Your task to perform on an android device: Open sound settings Image 0: 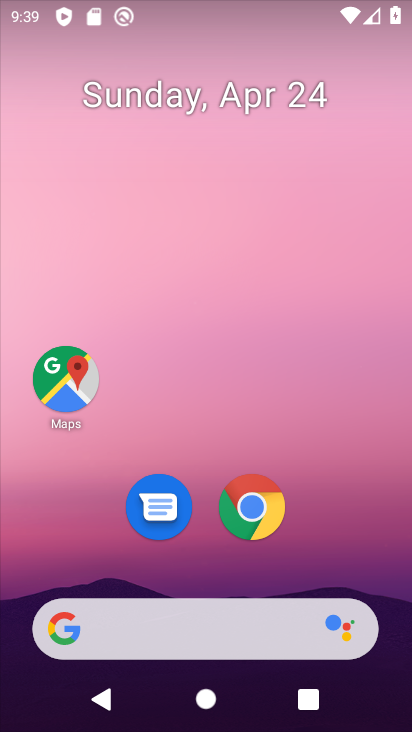
Step 0: drag from (173, 500) to (251, 126)
Your task to perform on an android device: Open sound settings Image 1: 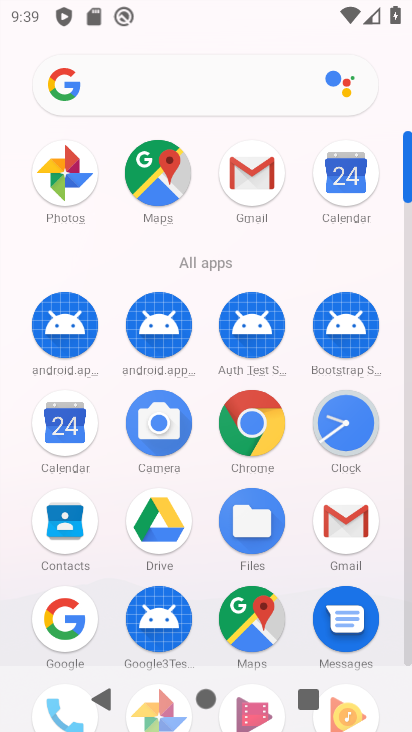
Step 1: drag from (142, 662) to (211, 373)
Your task to perform on an android device: Open sound settings Image 2: 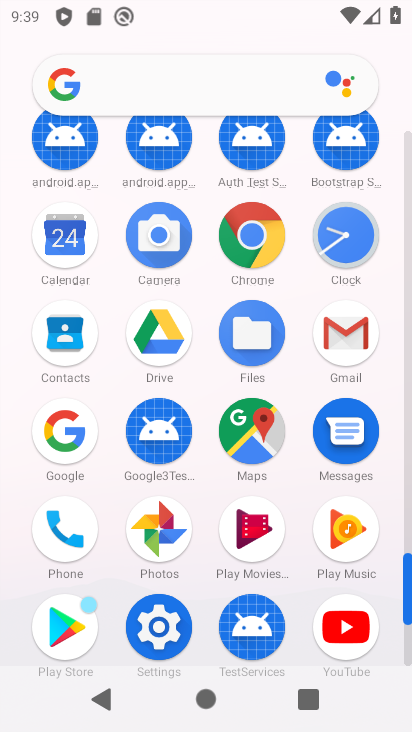
Step 2: click (151, 626)
Your task to perform on an android device: Open sound settings Image 3: 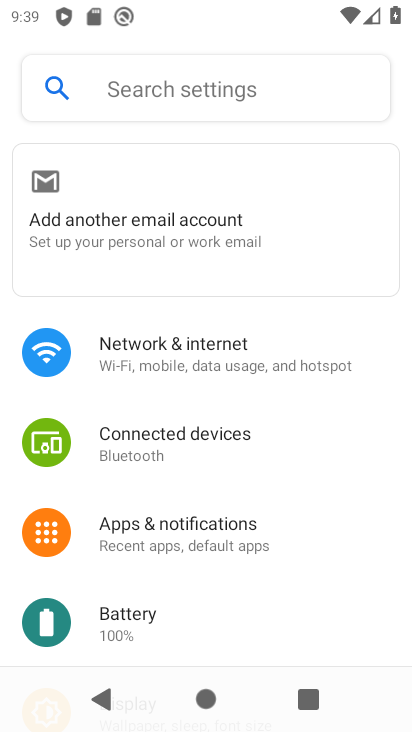
Step 3: drag from (212, 622) to (285, 270)
Your task to perform on an android device: Open sound settings Image 4: 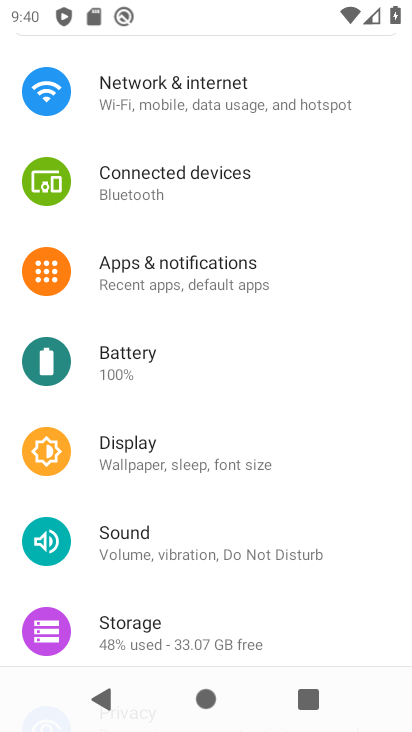
Step 4: click (144, 545)
Your task to perform on an android device: Open sound settings Image 5: 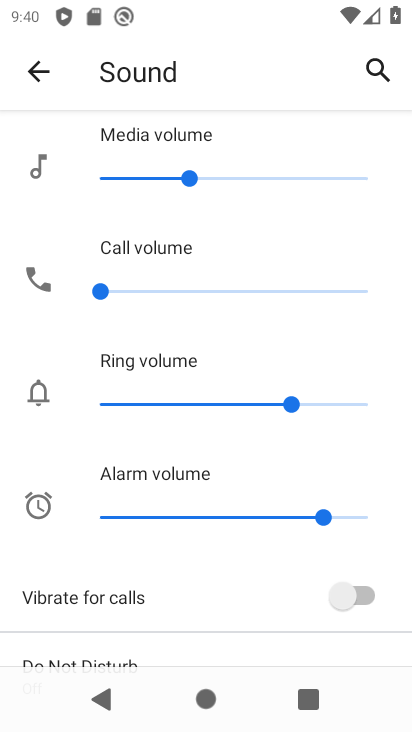
Step 5: task complete